Your task to perform on an android device: open a bookmark in the chrome app Image 0: 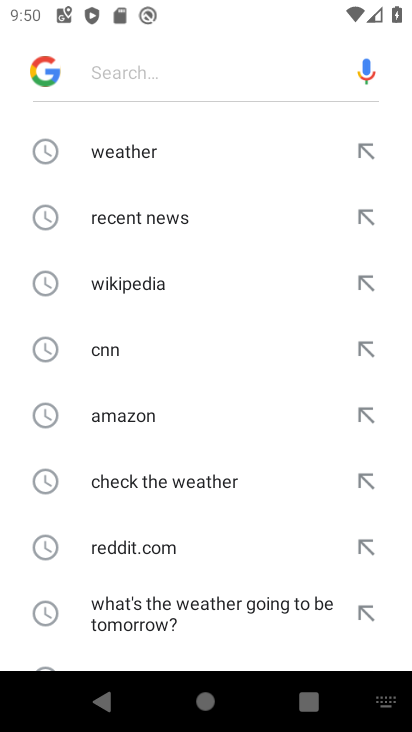
Step 0: press home button
Your task to perform on an android device: open a bookmark in the chrome app Image 1: 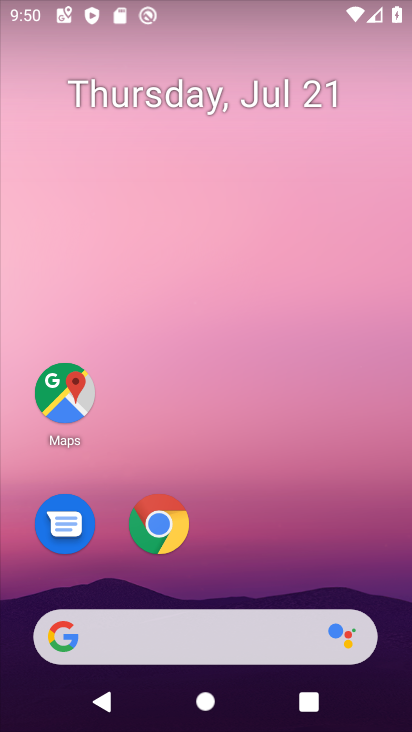
Step 1: click (155, 528)
Your task to perform on an android device: open a bookmark in the chrome app Image 2: 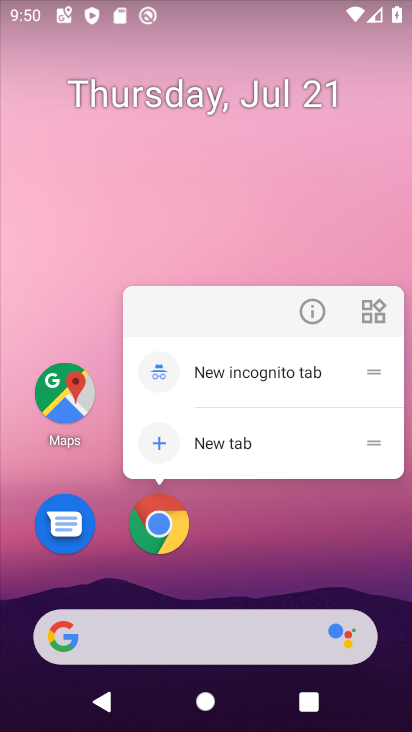
Step 2: click (162, 531)
Your task to perform on an android device: open a bookmark in the chrome app Image 3: 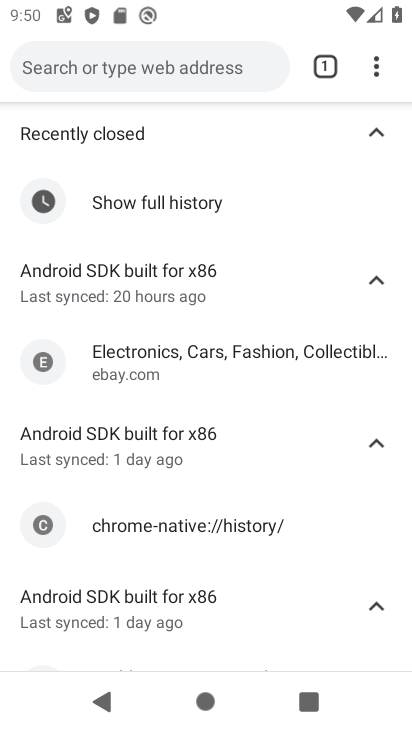
Step 3: task complete